Your task to perform on an android device: Open notification settings Image 0: 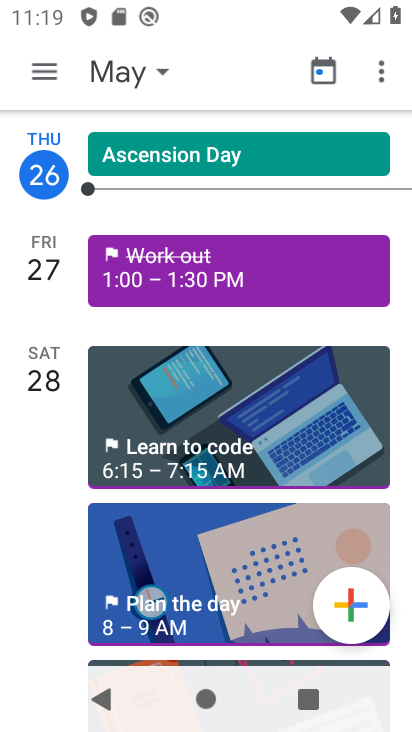
Step 0: press home button
Your task to perform on an android device: Open notification settings Image 1: 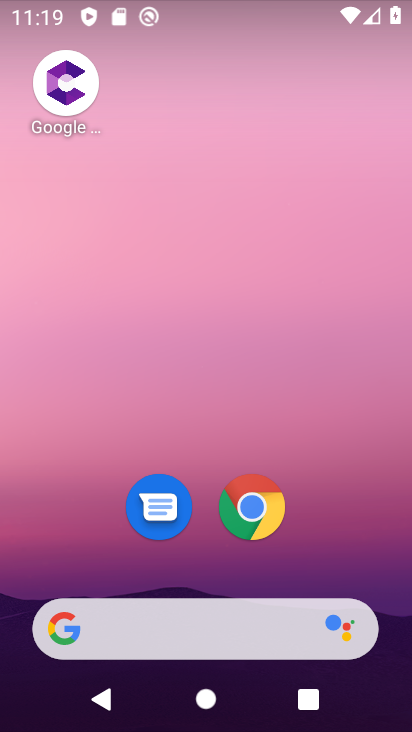
Step 1: drag from (369, 531) to (389, 167)
Your task to perform on an android device: Open notification settings Image 2: 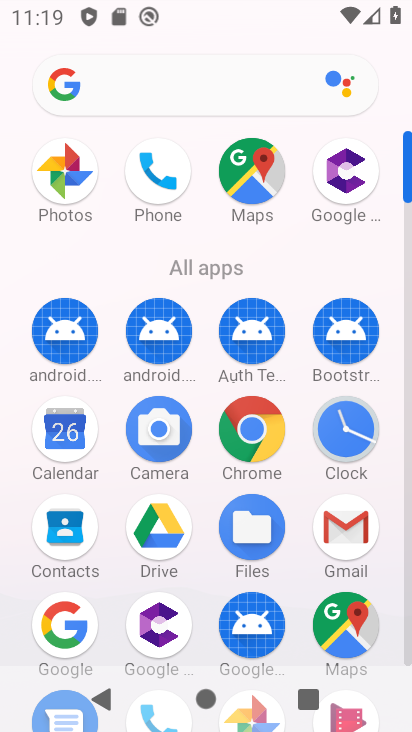
Step 2: drag from (212, 272) to (208, 93)
Your task to perform on an android device: Open notification settings Image 3: 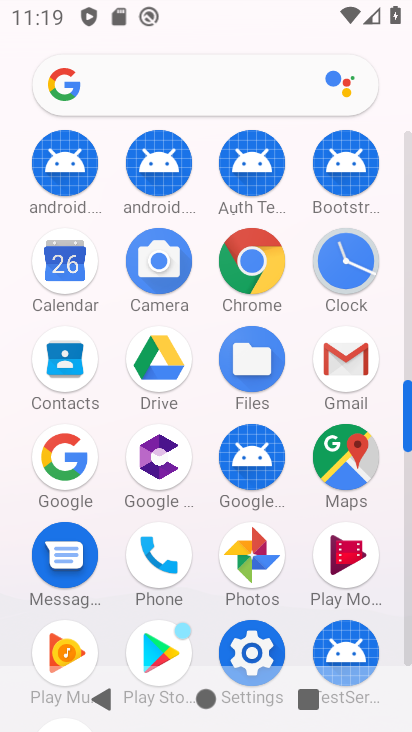
Step 3: click (249, 637)
Your task to perform on an android device: Open notification settings Image 4: 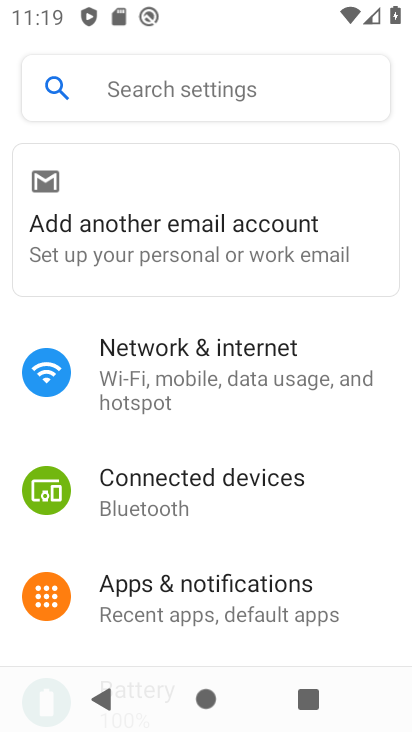
Step 4: click (258, 592)
Your task to perform on an android device: Open notification settings Image 5: 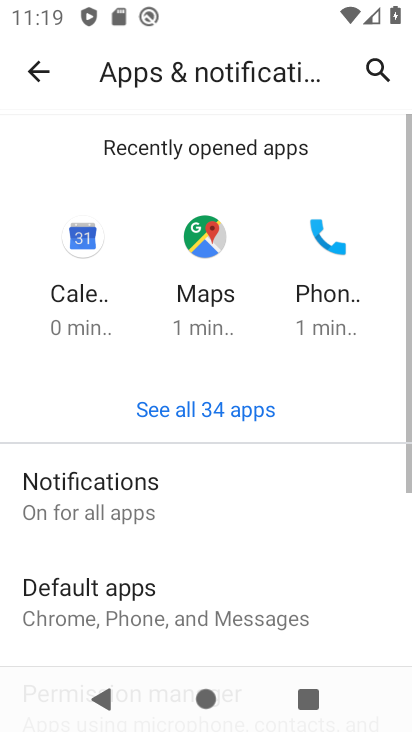
Step 5: click (147, 475)
Your task to perform on an android device: Open notification settings Image 6: 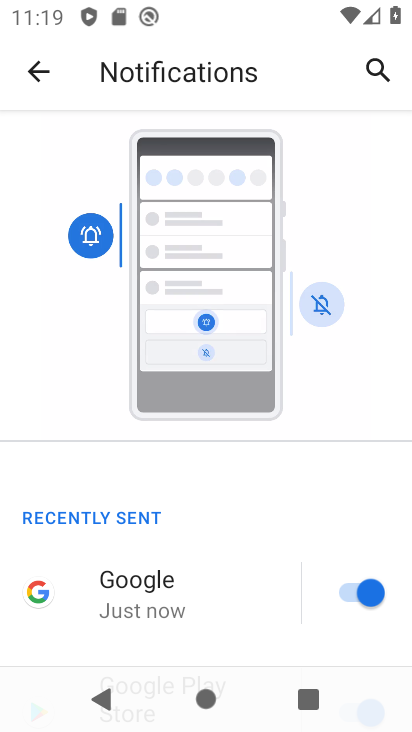
Step 6: task complete